Your task to perform on an android device: Do I have any events today? Image 0: 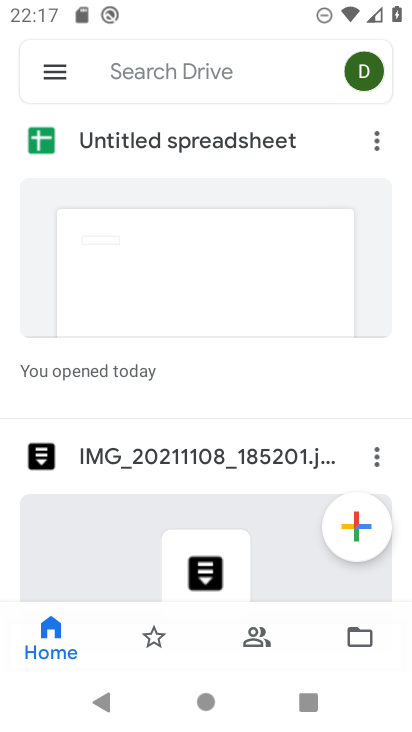
Step 0: press home button
Your task to perform on an android device: Do I have any events today? Image 1: 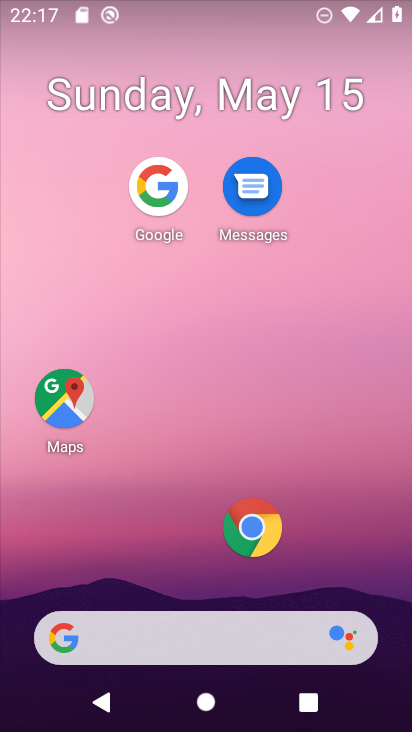
Step 1: drag from (160, 629) to (306, 143)
Your task to perform on an android device: Do I have any events today? Image 2: 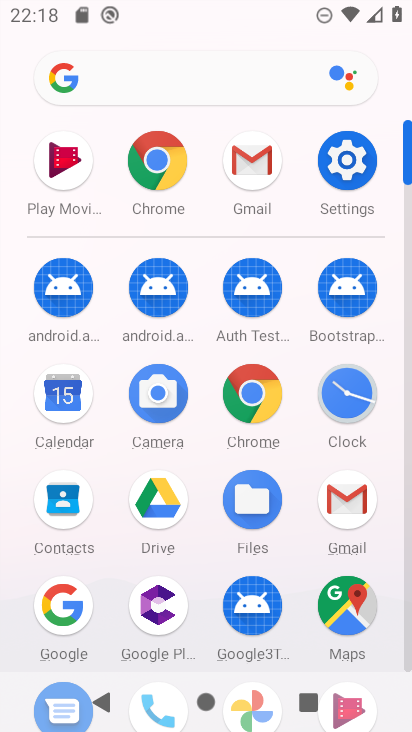
Step 2: click (71, 406)
Your task to perform on an android device: Do I have any events today? Image 3: 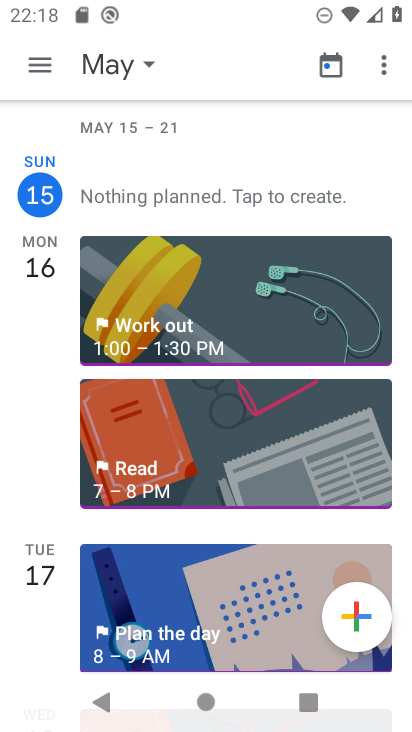
Step 3: task complete